Your task to perform on an android device: move an email to a new category in the gmail app Image 0: 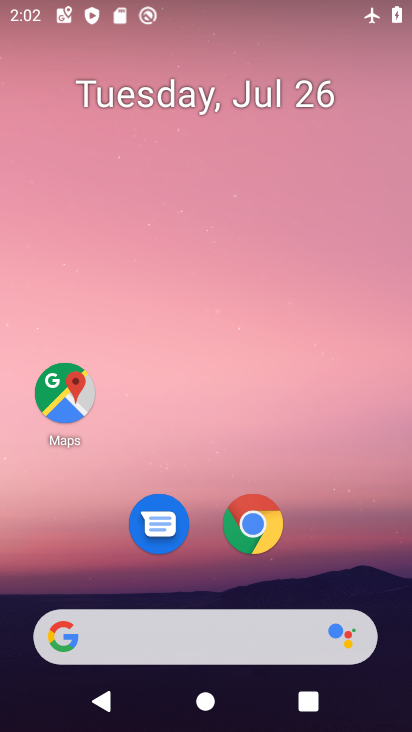
Step 0: drag from (339, 542) to (367, 37)
Your task to perform on an android device: move an email to a new category in the gmail app Image 1: 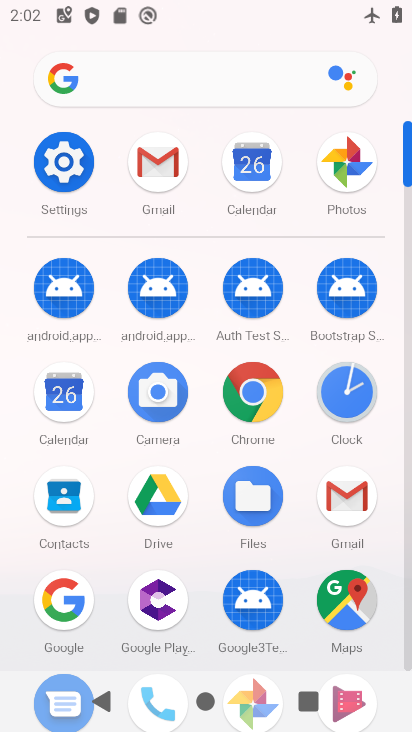
Step 1: click (158, 172)
Your task to perform on an android device: move an email to a new category in the gmail app Image 2: 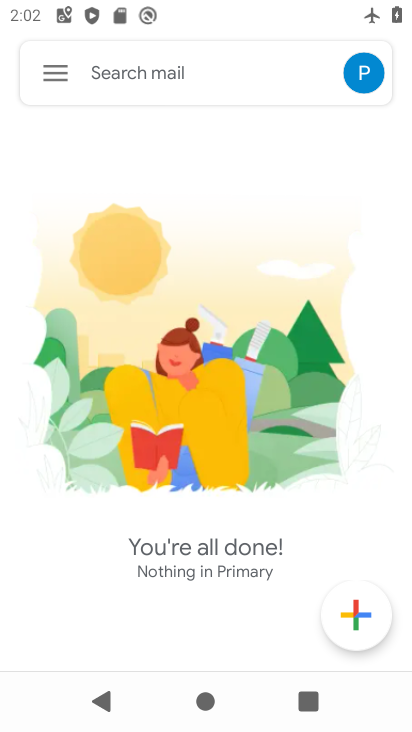
Step 2: click (58, 70)
Your task to perform on an android device: move an email to a new category in the gmail app Image 3: 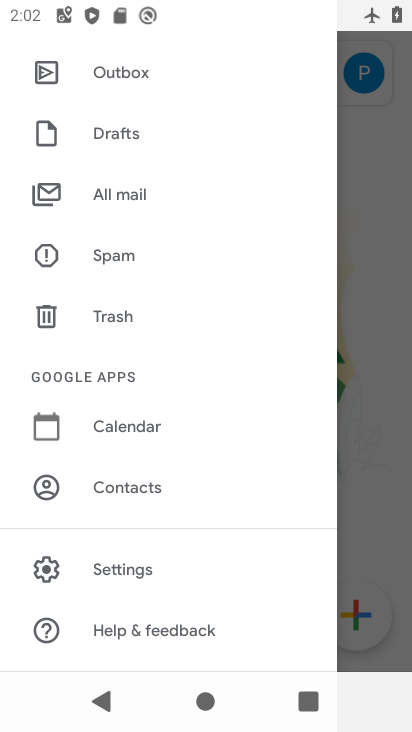
Step 3: click (127, 202)
Your task to perform on an android device: move an email to a new category in the gmail app Image 4: 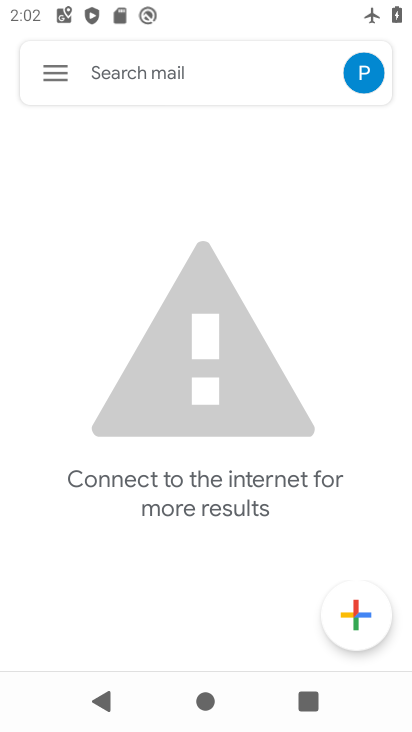
Step 4: task complete